Your task to perform on an android device: set default search engine in the chrome app Image 0: 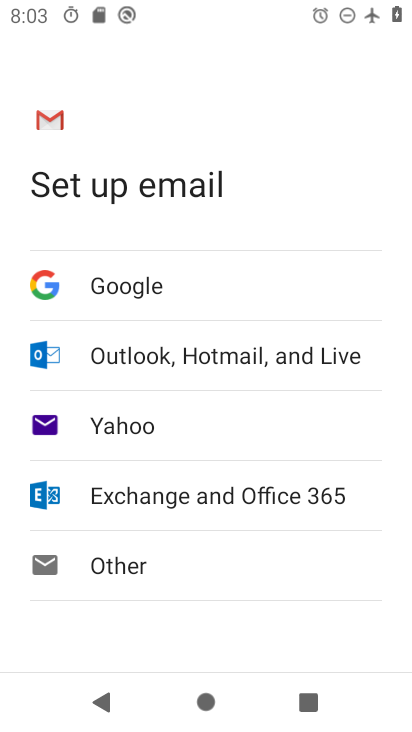
Step 0: press home button
Your task to perform on an android device: set default search engine in the chrome app Image 1: 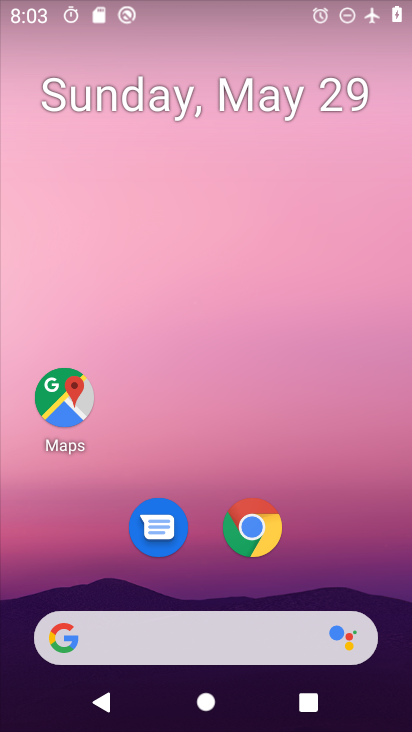
Step 1: drag from (391, 652) to (324, 61)
Your task to perform on an android device: set default search engine in the chrome app Image 2: 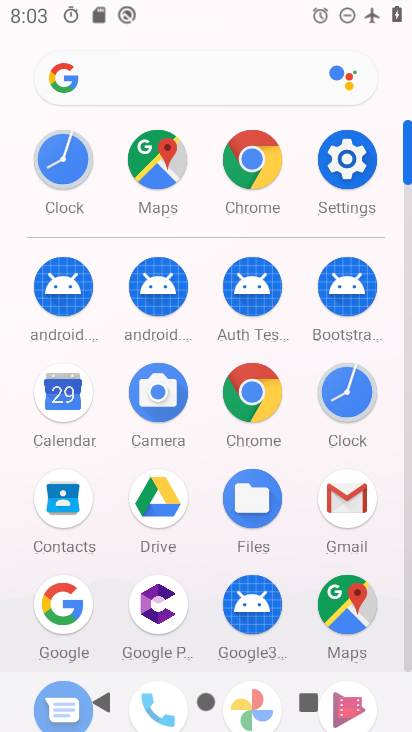
Step 2: click (226, 150)
Your task to perform on an android device: set default search engine in the chrome app Image 3: 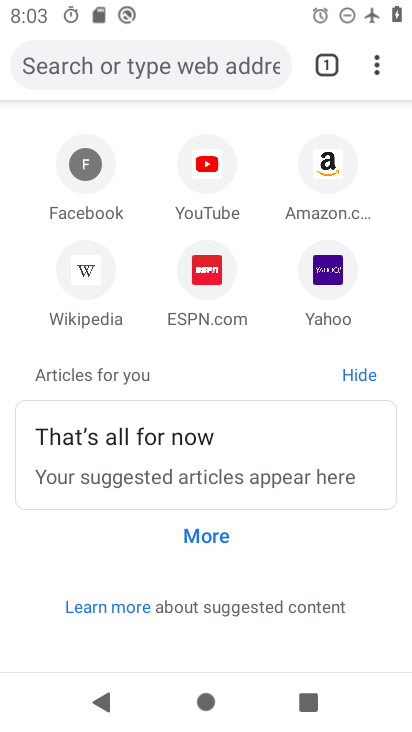
Step 3: click (381, 60)
Your task to perform on an android device: set default search engine in the chrome app Image 4: 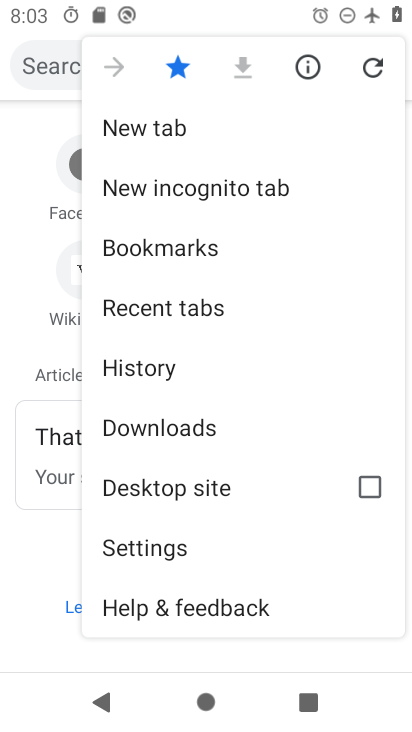
Step 4: click (147, 577)
Your task to perform on an android device: set default search engine in the chrome app Image 5: 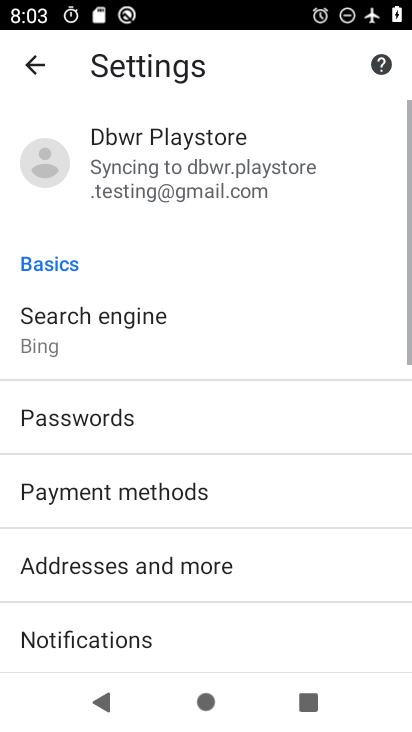
Step 5: click (124, 312)
Your task to perform on an android device: set default search engine in the chrome app Image 6: 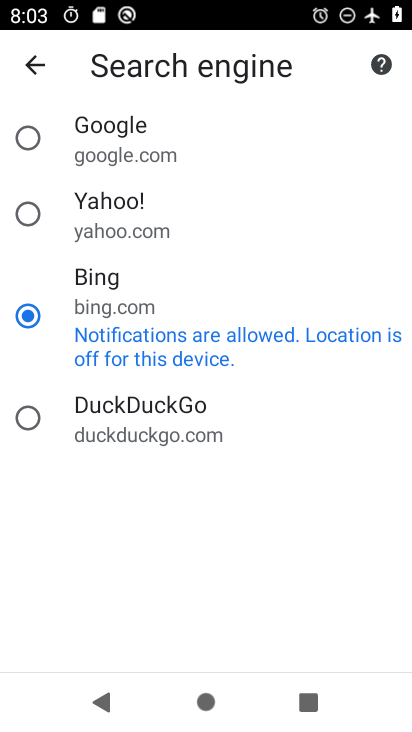
Step 6: click (85, 143)
Your task to perform on an android device: set default search engine in the chrome app Image 7: 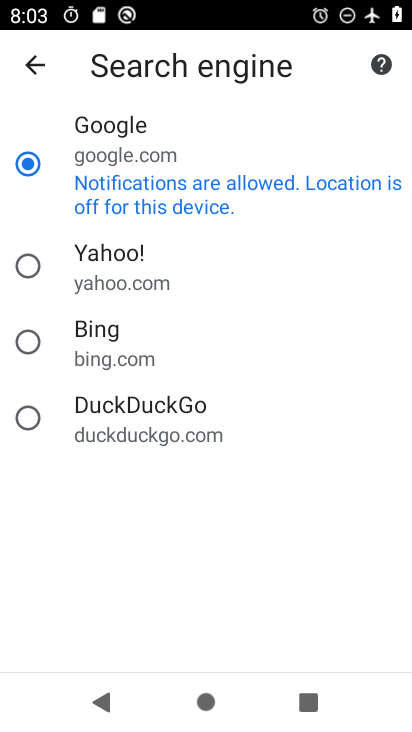
Step 7: task complete